Your task to perform on an android device: Open battery settings Image 0: 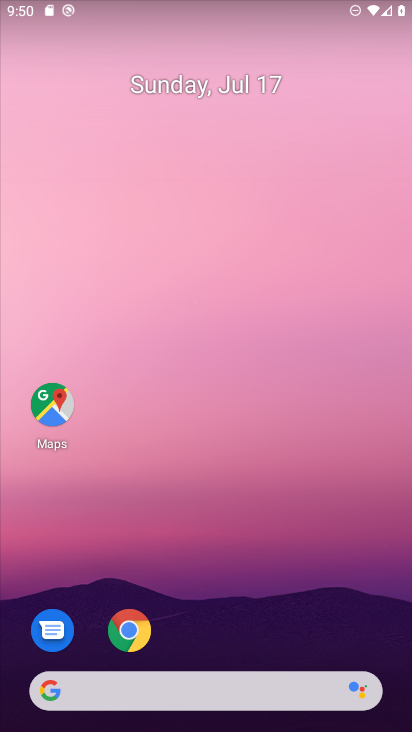
Step 0: drag from (120, 598) to (206, 327)
Your task to perform on an android device: Open battery settings Image 1: 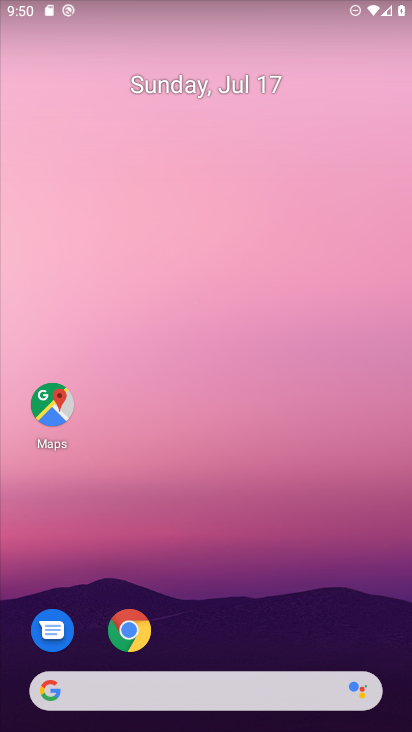
Step 1: drag from (220, 658) to (312, 85)
Your task to perform on an android device: Open battery settings Image 2: 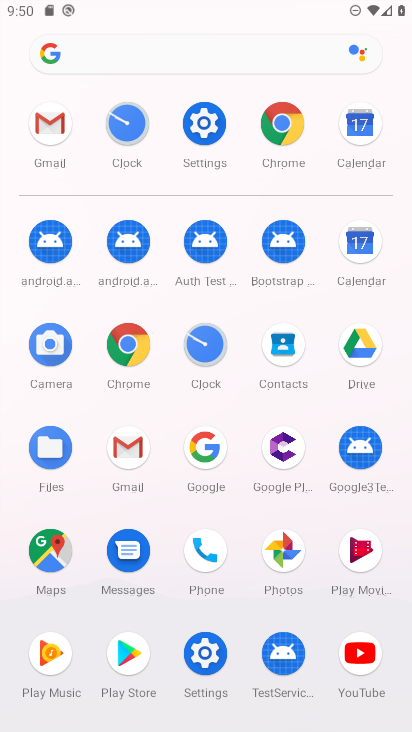
Step 2: click (208, 114)
Your task to perform on an android device: Open battery settings Image 3: 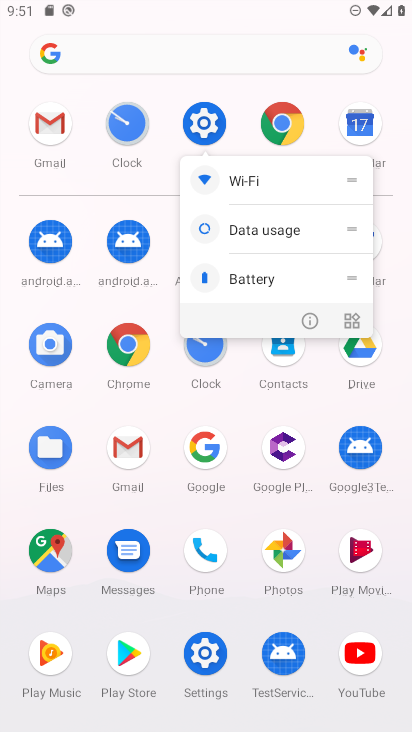
Step 3: click (192, 116)
Your task to perform on an android device: Open battery settings Image 4: 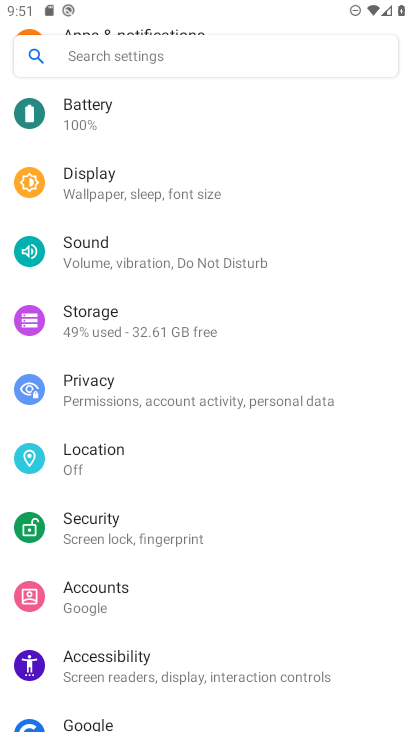
Step 4: click (105, 117)
Your task to perform on an android device: Open battery settings Image 5: 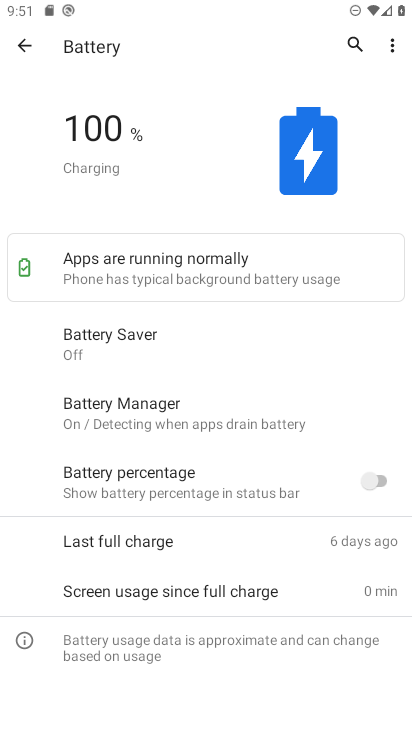
Step 5: task complete